Your task to perform on an android device: change text size in settings app Image 0: 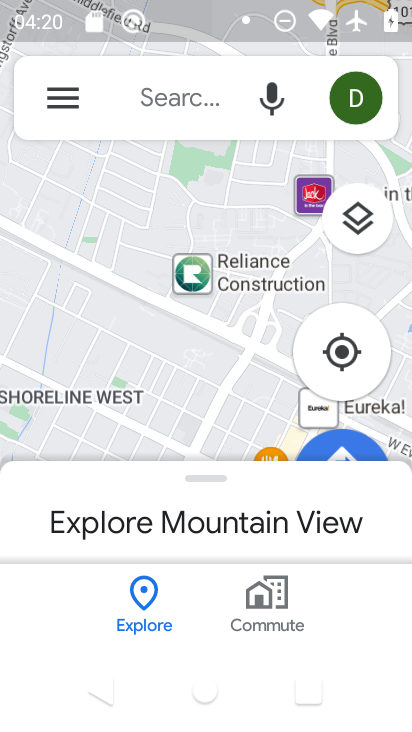
Step 0: press home button
Your task to perform on an android device: change text size in settings app Image 1: 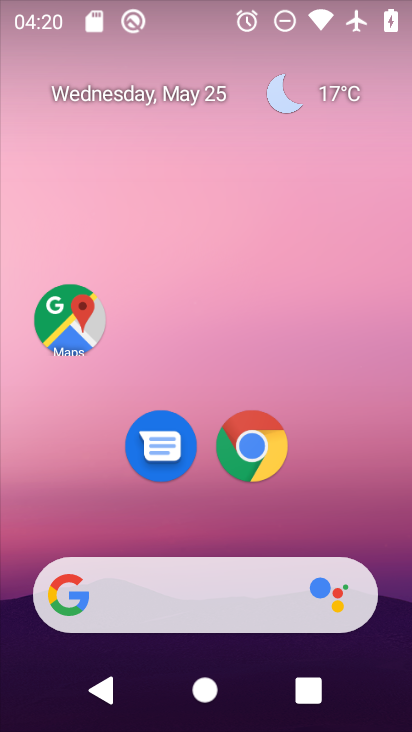
Step 1: drag from (158, 612) to (90, 18)
Your task to perform on an android device: change text size in settings app Image 2: 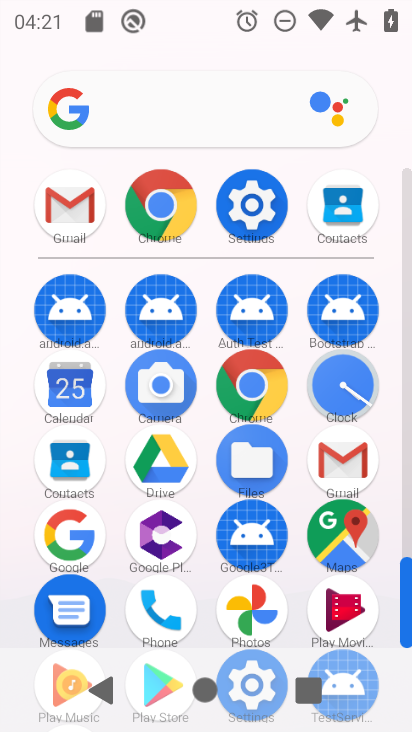
Step 2: click (246, 199)
Your task to perform on an android device: change text size in settings app Image 3: 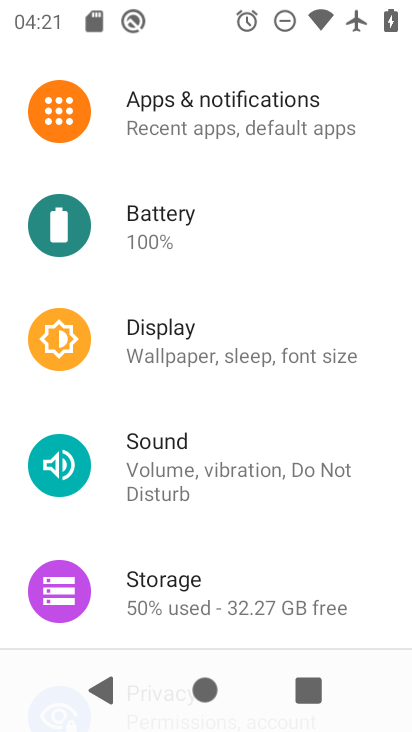
Step 3: click (194, 366)
Your task to perform on an android device: change text size in settings app Image 4: 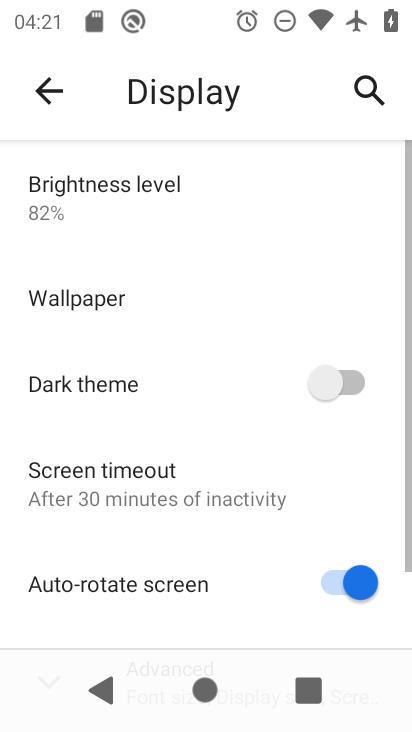
Step 4: drag from (165, 556) to (114, 34)
Your task to perform on an android device: change text size in settings app Image 5: 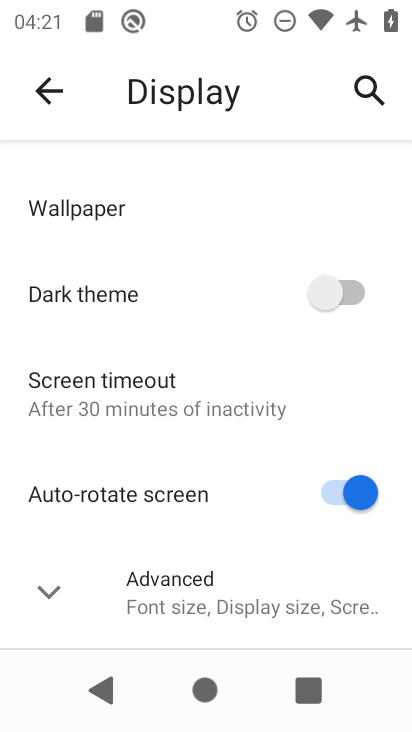
Step 5: click (163, 613)
Your task to perform on an android device: change text size in settings app Image 6: 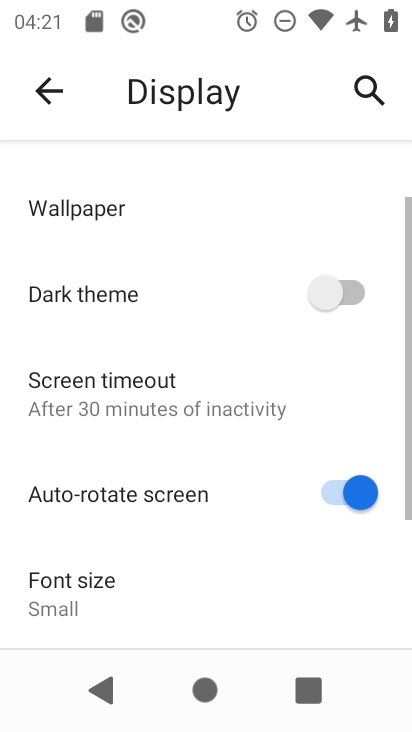
Step 6: click (142, 597)
Your task to perform on an android device: change text size in settings app Image 7: 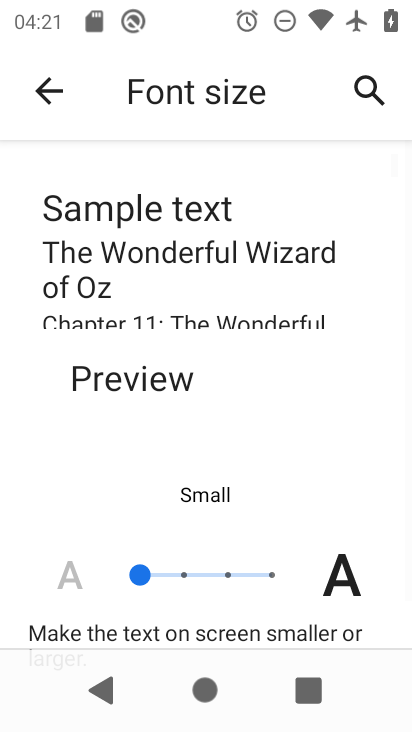
Step 7: click (173, 578)
Your task to perform on an android device: change text size in settings app Image 8: 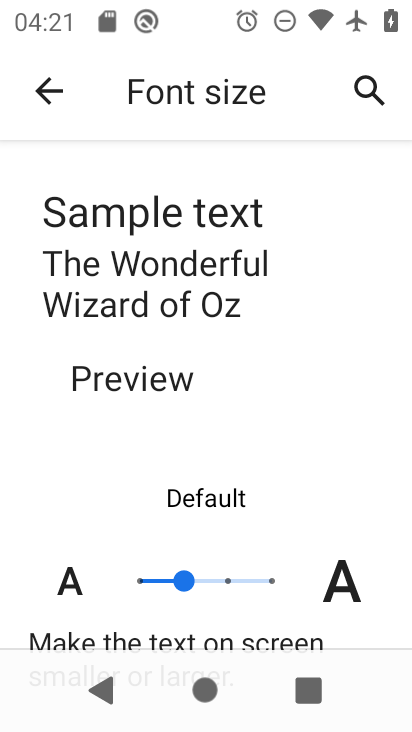
Step 8: task complete